Your task to perform on an android device: Open Google Chrome and click the shortcut for Amazon.com Image 0: 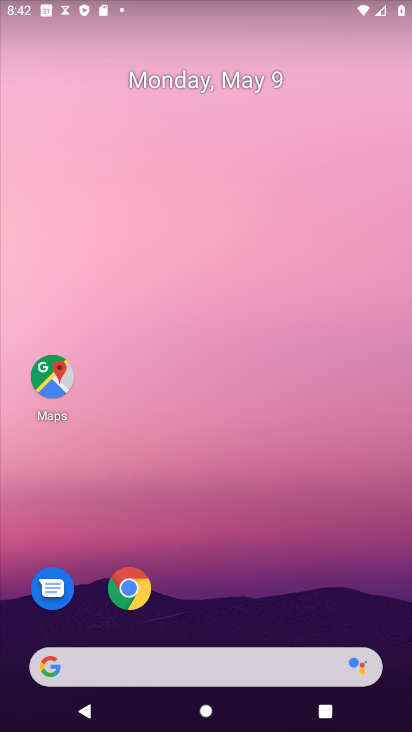
Step 0: drag from (217, 610) to (231, 44)
Your task to perform on an android device: Open Google Chrome and click the shortcut for Amazon.com Image 1: 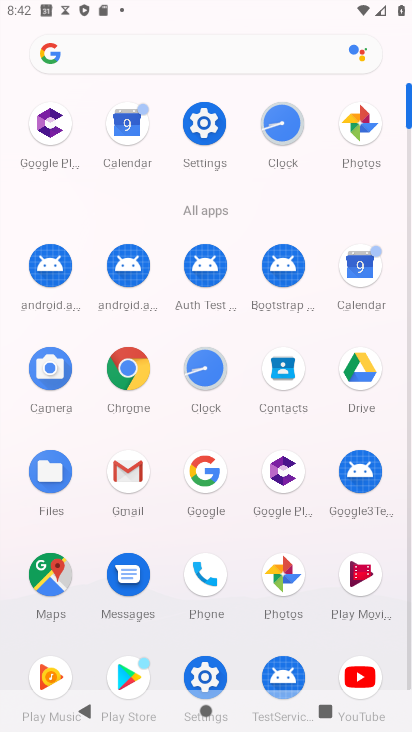
Step 1: click (133, 353)
Your task to perform on an android device: Open Google Chrome and click the shortcut for Amazon.com Image 2: 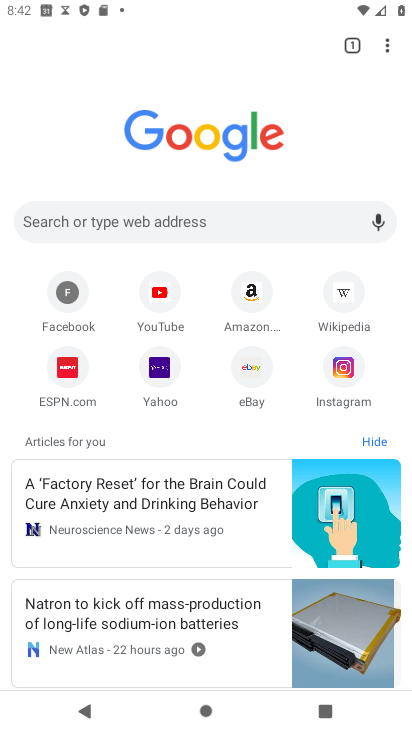
Step 2: click (250, 292)
Your task to perform on an android device: Open Google Chrome and click the shortcut for Amazon.com Image 3: 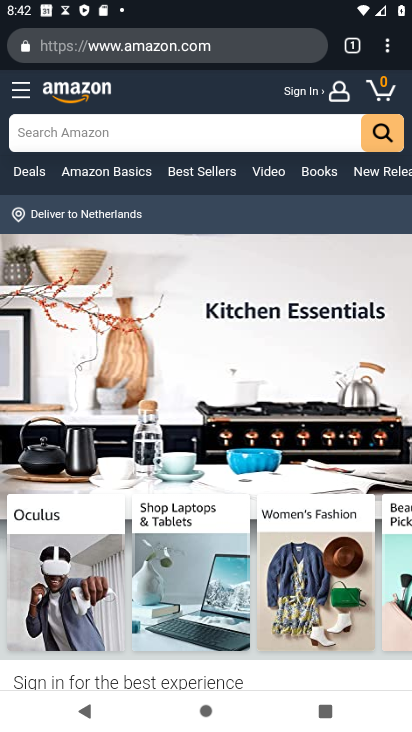
Step 3: task complete